Your task to perform on an android device: Open Google Maps Image 0: 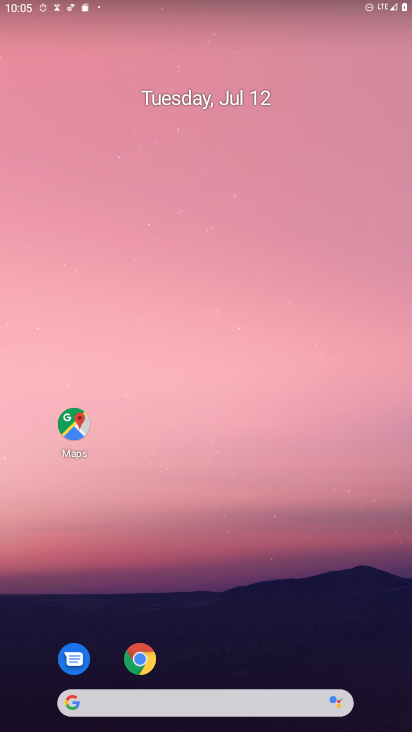
Step 0: click (72, 424)
Your task to perform on an android device: Open Google Maps Image 1: 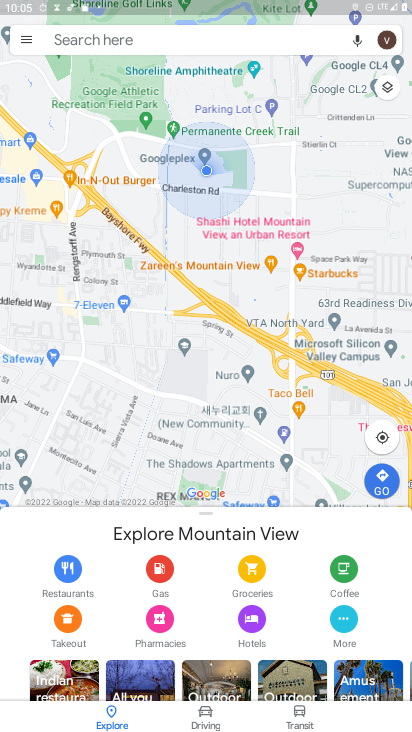
Step 1: task complete